Your task to perform on an android device: toggle sleep mode Image 0: 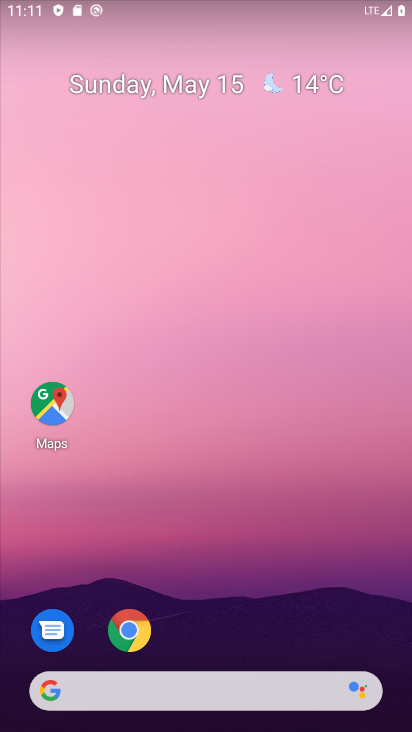
Step 0: drag from (8, 667) to (211, 271)
Your task to perform on an android device: toggle sleep mode Image 1: 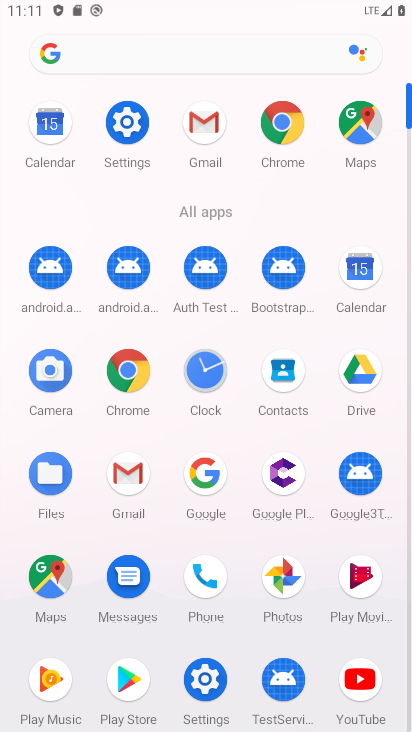
Step 1: click (115, 129)
Your task to perform on an android device: toggle sleep mode Image 2: 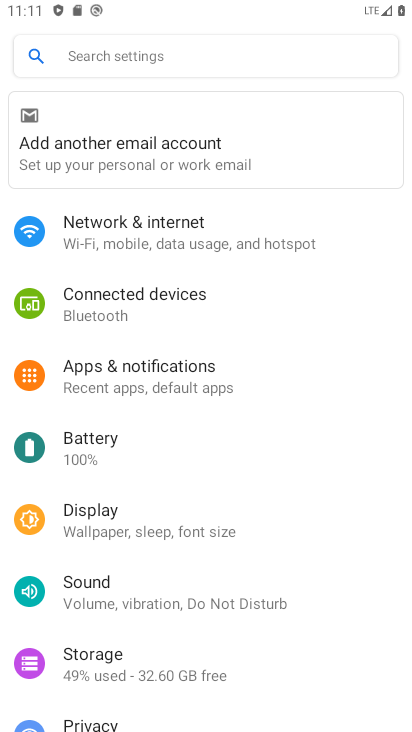
Step 2: click (135, 531)
Your task to perform on an android device: toggle sleep mode Image 3: 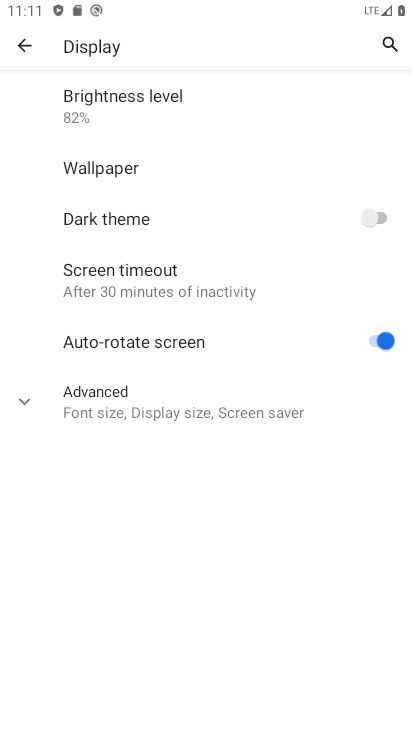
Step 3: task complete